Your task to perform on an android device: Toggle the flashlight Image 0: 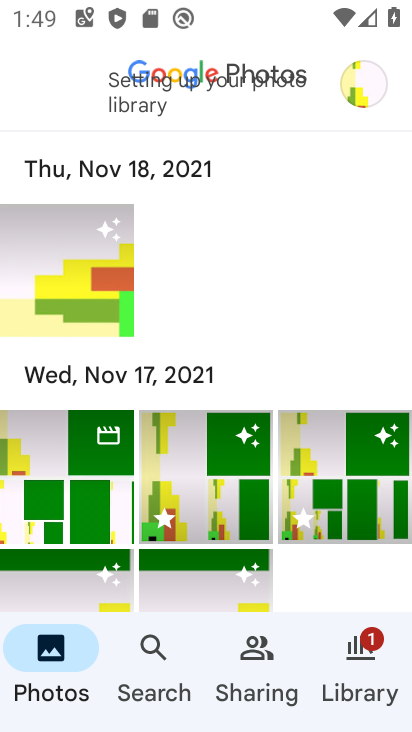
Step 0: press home button
Your task to perform on an android device: Toggle the flashlight Image 1: 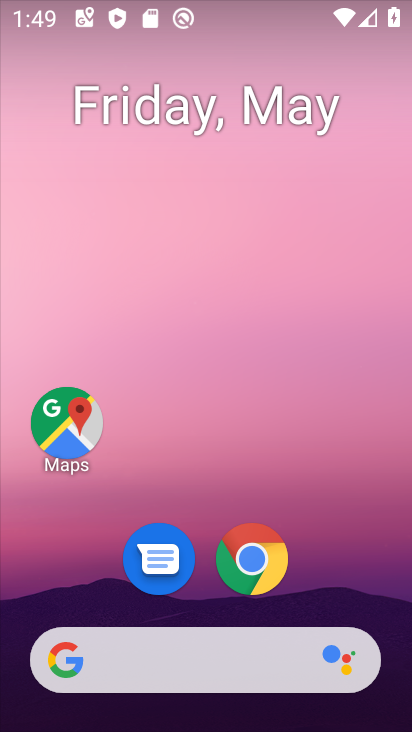
Step 1: drag from (345, 569) to (327, 178)
Your task to perform on an android device: Toggle the flashlight Image 2: 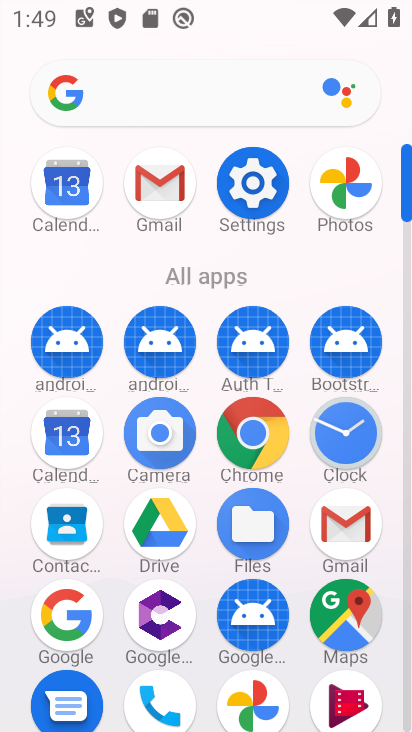
Step 2: click (243, 191)
Your task to perform on an android device: Toggle the flashlight Image 3: 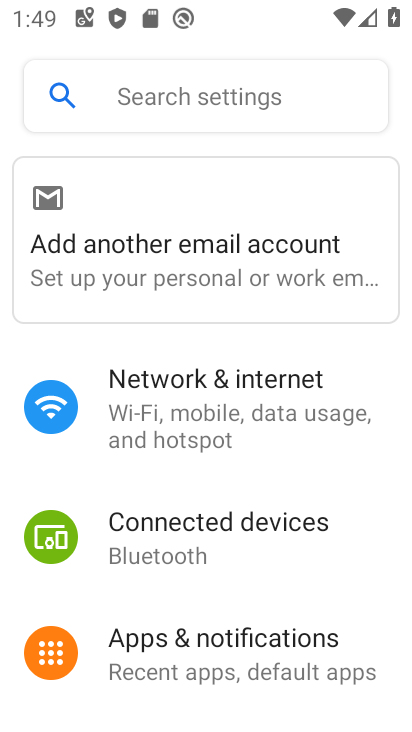
Step 3: click (194, 114)
Your task to perform on an android device: Toggle the flashlight Image 4: 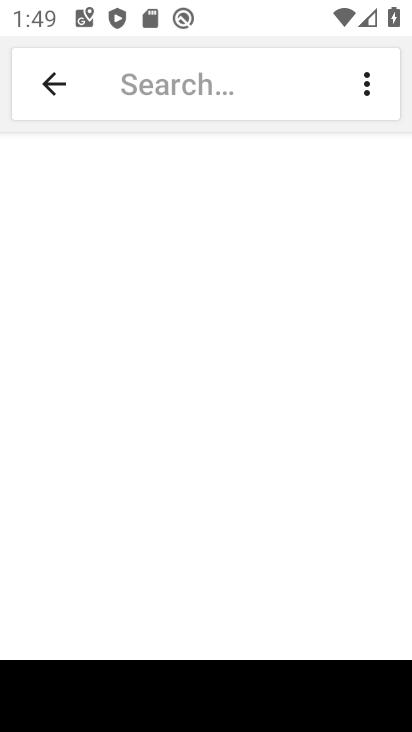
Step 4: type "flashlight"
Your task to perform on an android device: Toggle the flashlight Image 5: 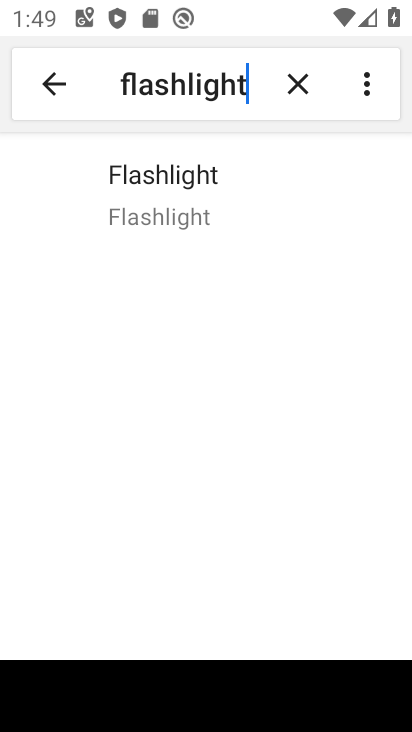
Step 5: click (235, 174)
Your task to perform on an android device: Toggle the flashlight Image 6: 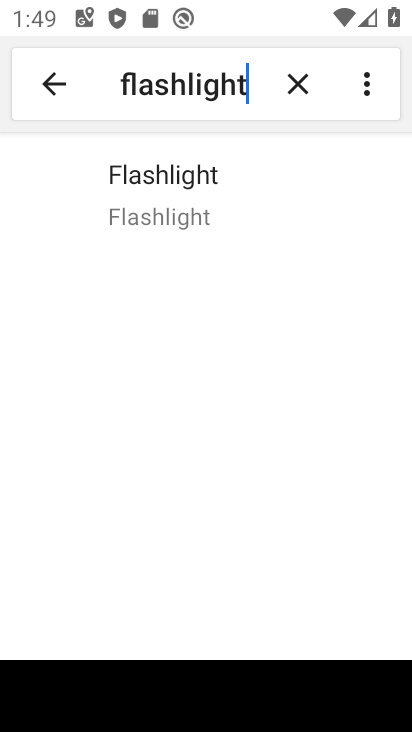
Step 6: click (192, 214)
Your task to perform on an android device: Toggle the flashlight Image 7: 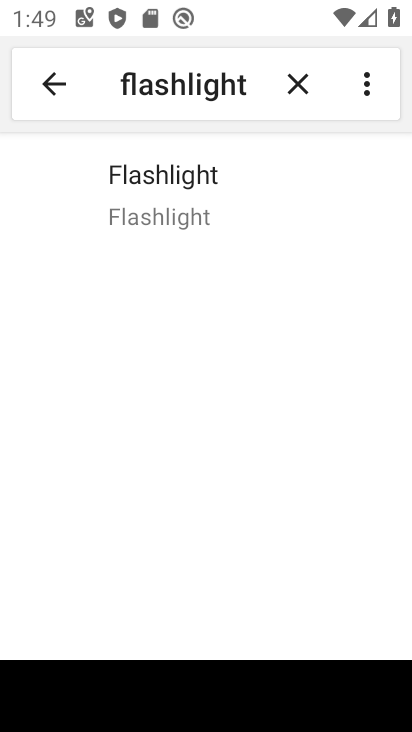
Step 7: task complete